Your task to perform on an android device: Turn on the flashlight Image 0: 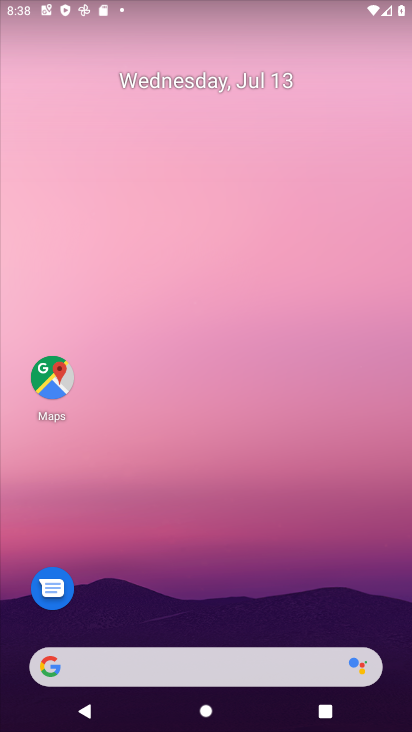
Step 0: drag from (333, 22) to (399, 675)
Your task to perform on an android device: Turn on the flashlight Image 1: 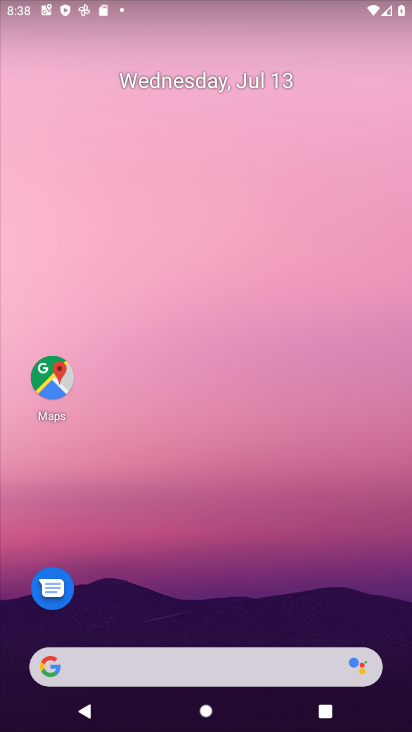
Step 1: task complete